Your task to perform on an android device: Check the weather Image 0: 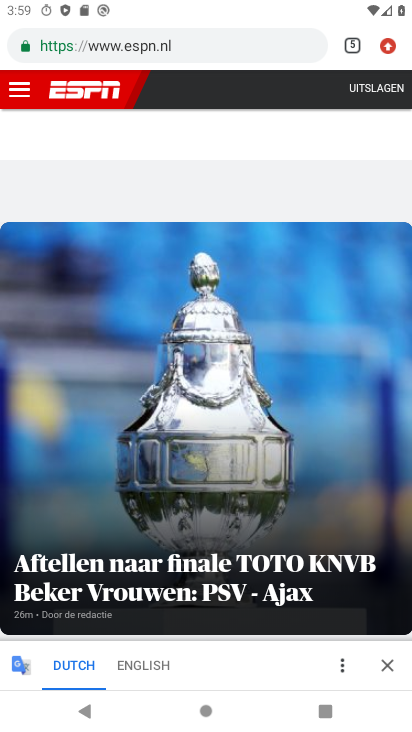
Step 0: press home button
Your task to perform on an android device: Check the weather Image 1: 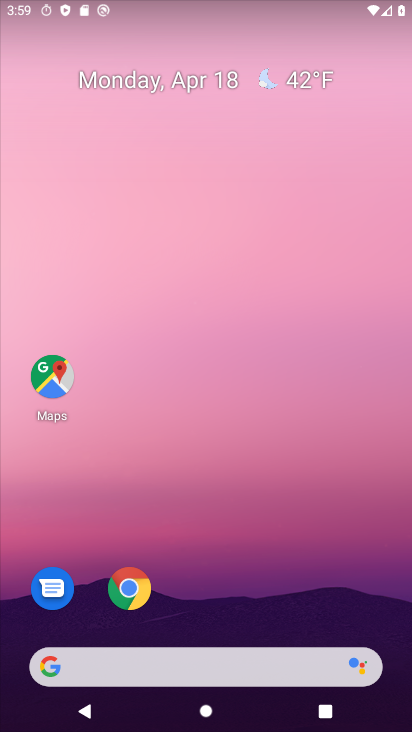
Step 1: click (51, 667)
Your task to perform on an android device: Check the weather Image 2: 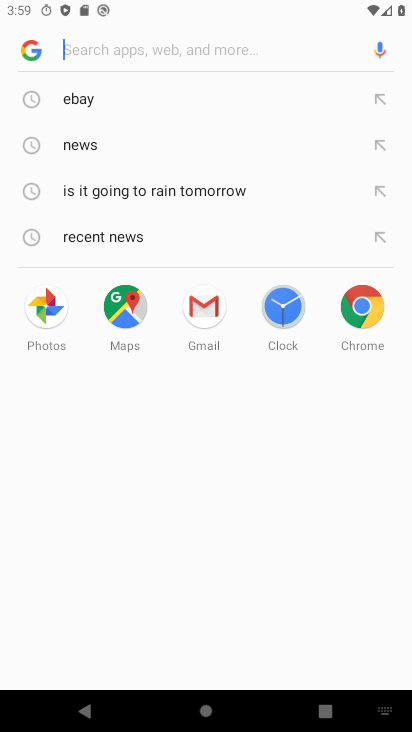
Step 2: click (37, 50)
Your task to perform on an android device: Check the weather Image 3: 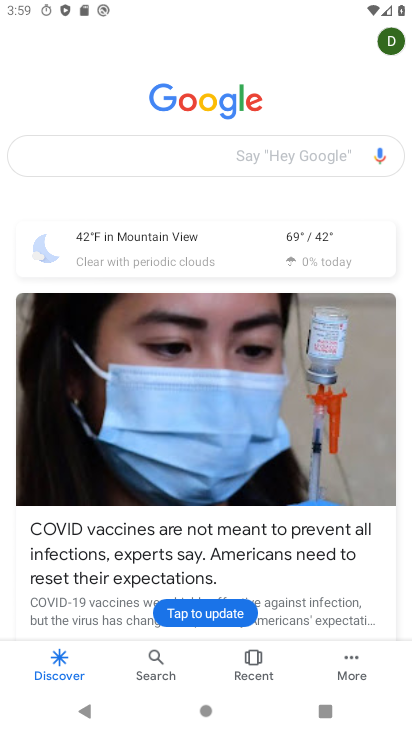
Step 3: click (305, 231)
Your task to perform on an android device: Check the weather Image 4: 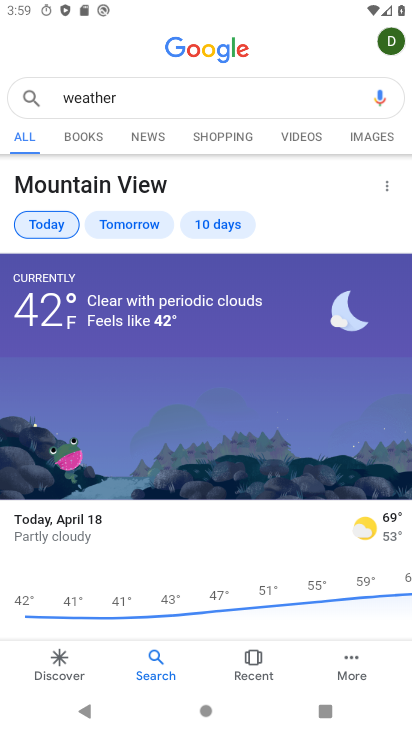
Step 4: task complete